Your task to perform on an android device: Set the phone to "Do not disturb". Image 0: 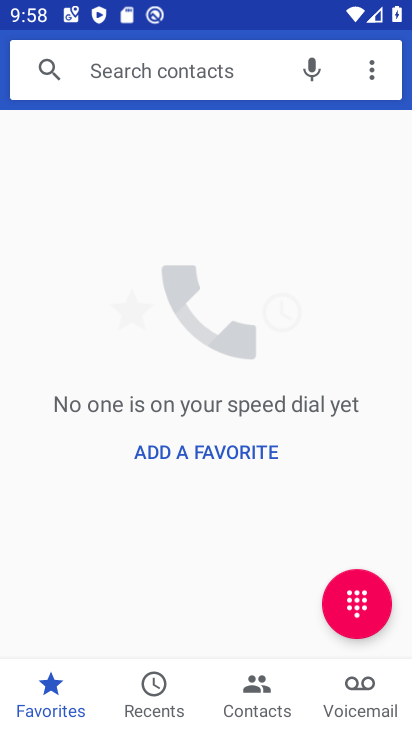
Step 0: press home button
Your task to perform on an android device: Set the phone to "Do not disturb". Image 1: 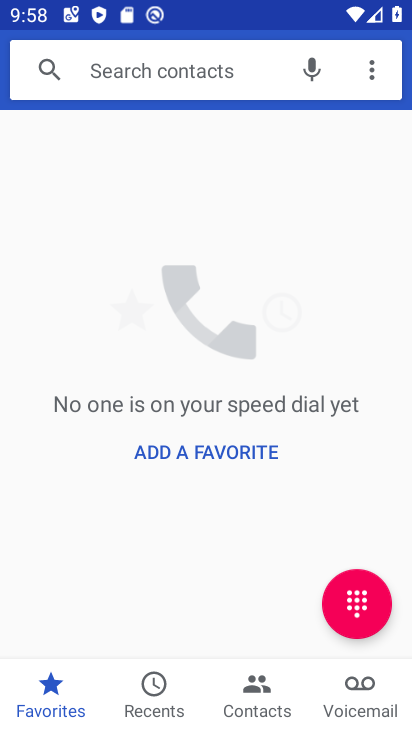
Step 1: press home button
Your task to perform on an android device: Set the phone to "Do not disturb". Image 2: 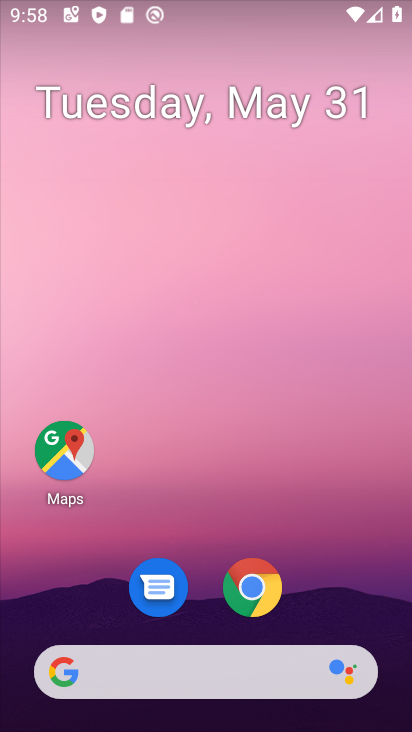
Step 2: drag from (202, 6) to (213, 406)
Your task to perform on an android device: Set the phone to "Do not disturb". Image 3: 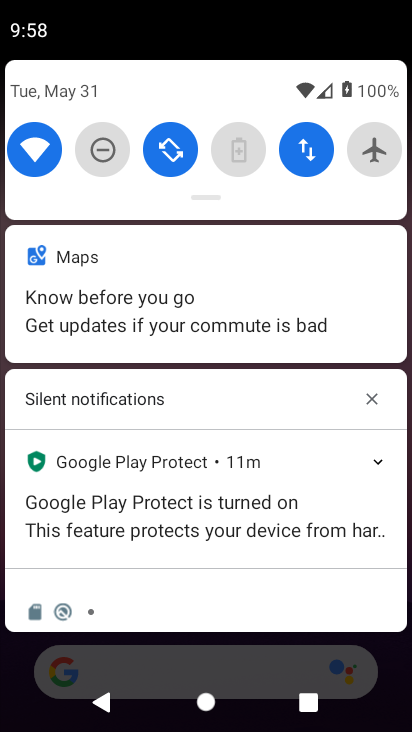
Step 3: click (100, 141)
Your task to perform on an android device: Set the phone to "Do not disturb". Image 4: 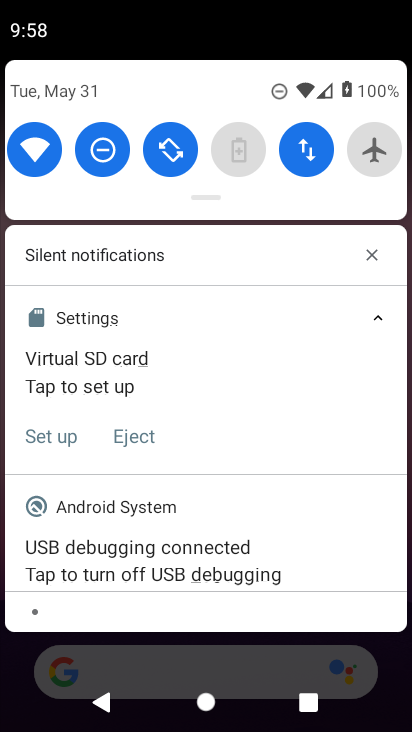
Step 4: task complete